Your task to perform on an android device: Open a new incognito window in the chrome app Image 0: 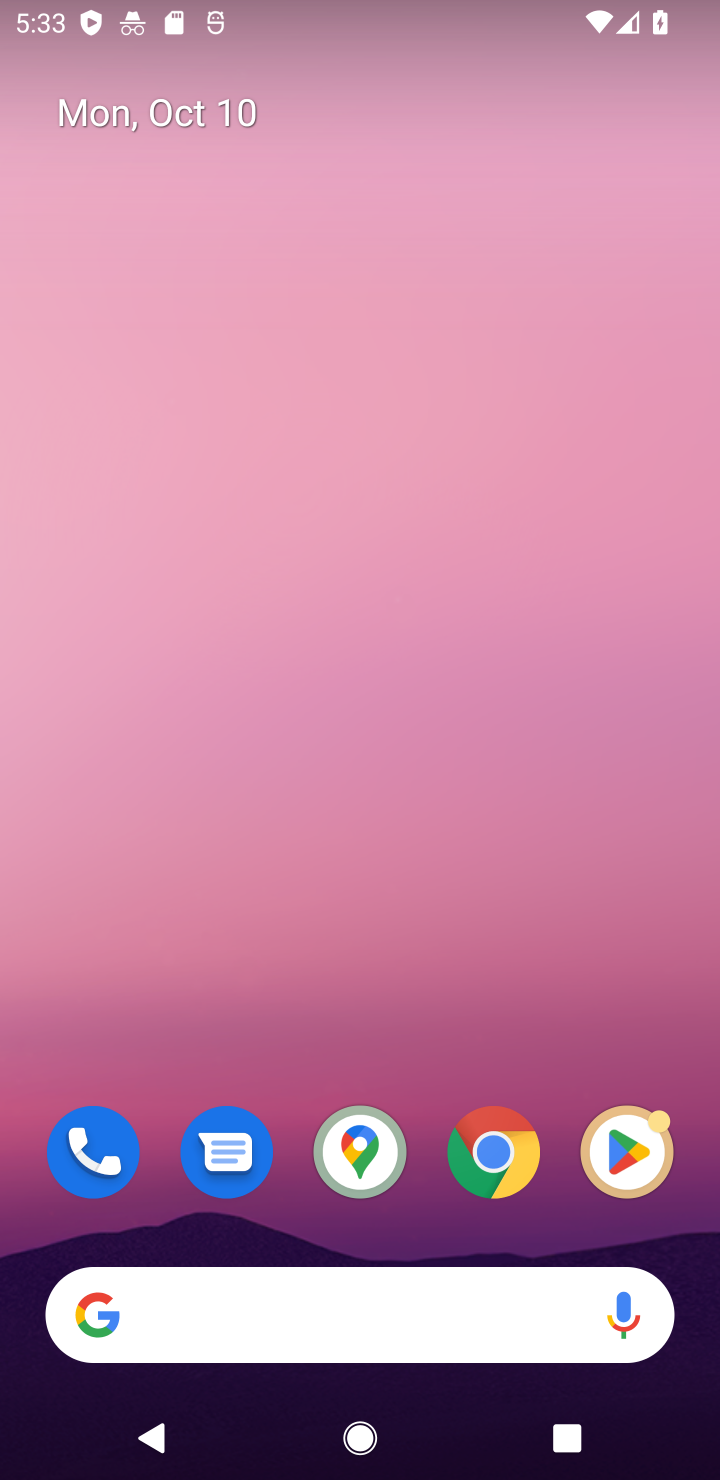
Step 0: click (495, 1153)
Your task to perform on an android device: Open a new incognito window in the chrome app Image 1: 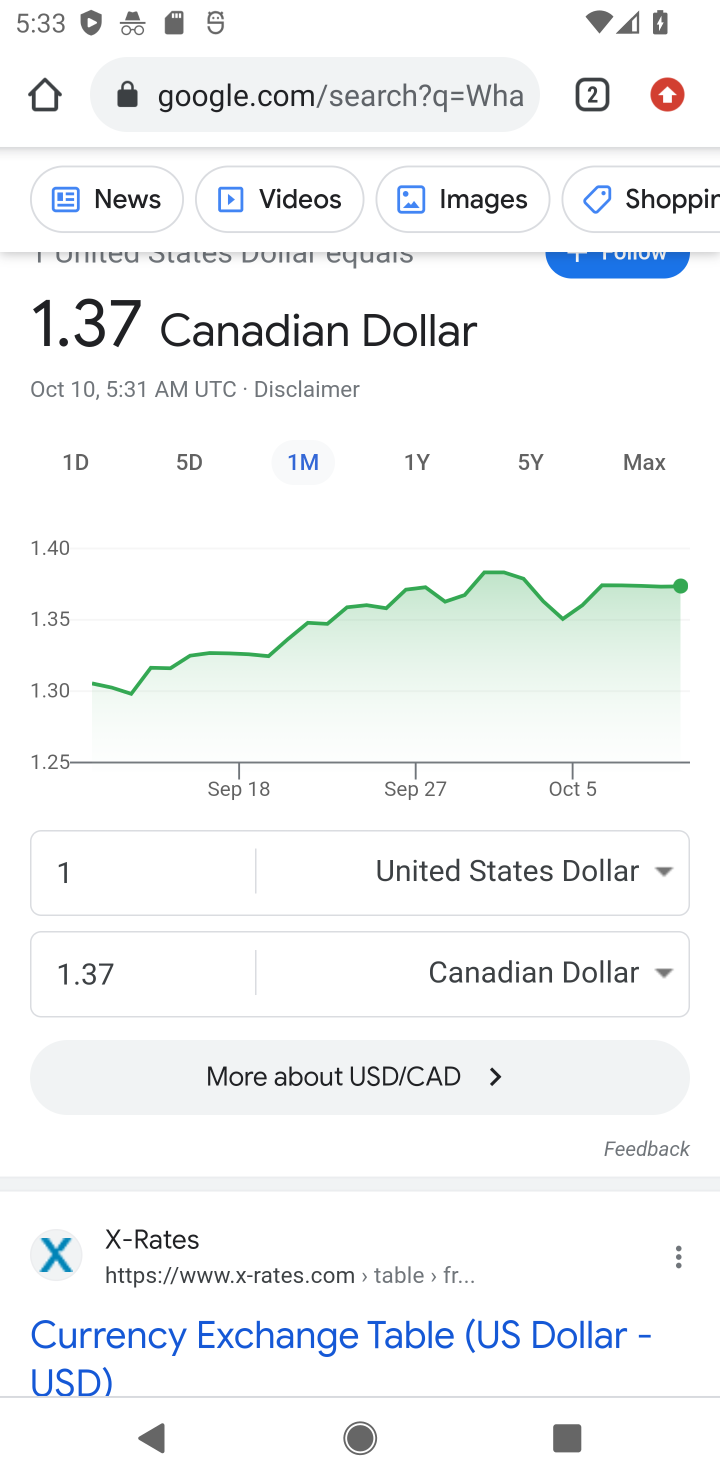
Step 1: click (668, 105)
Your task to perform on an android device: Open a new incognito window in the chrome app Image 2: 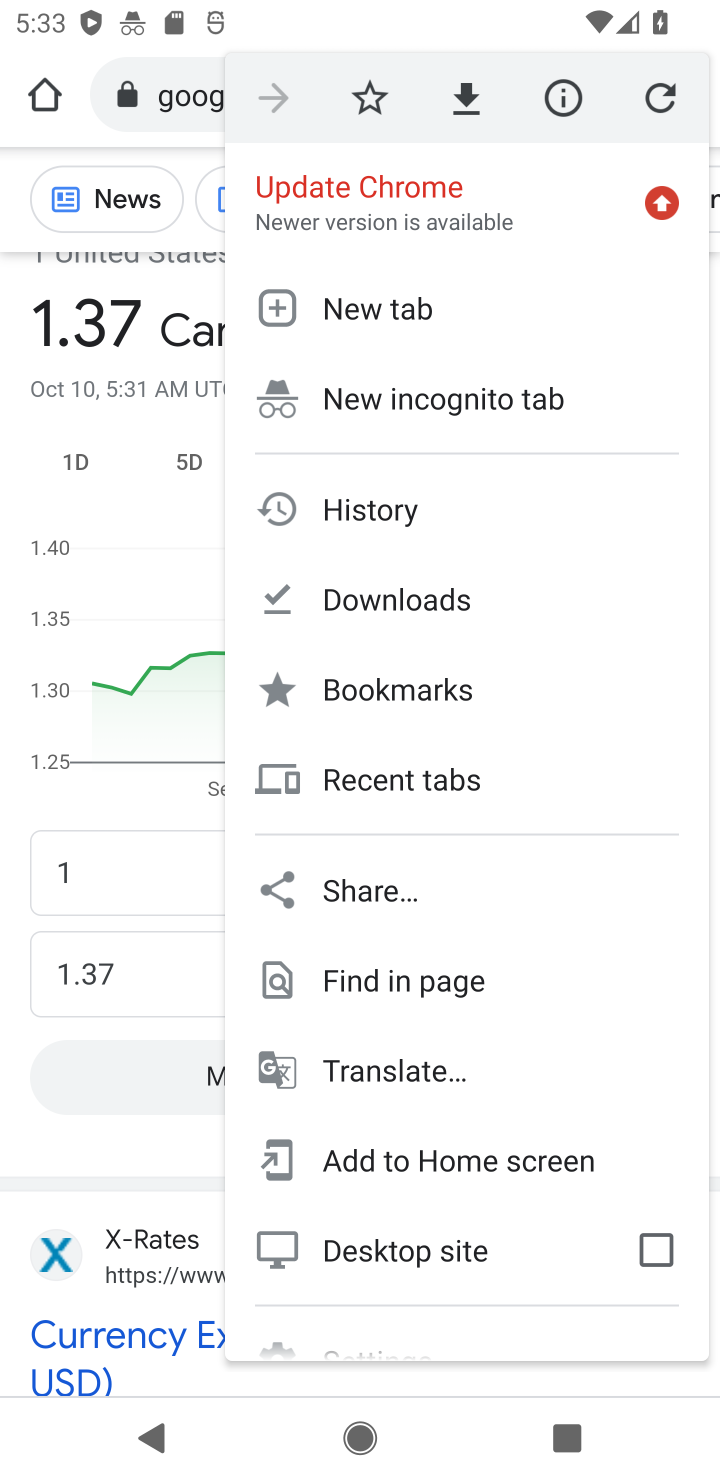
Step 2: click (482, 393)
Your task to perform on an android device: Open a new incognito window in the chrome app Image 3: 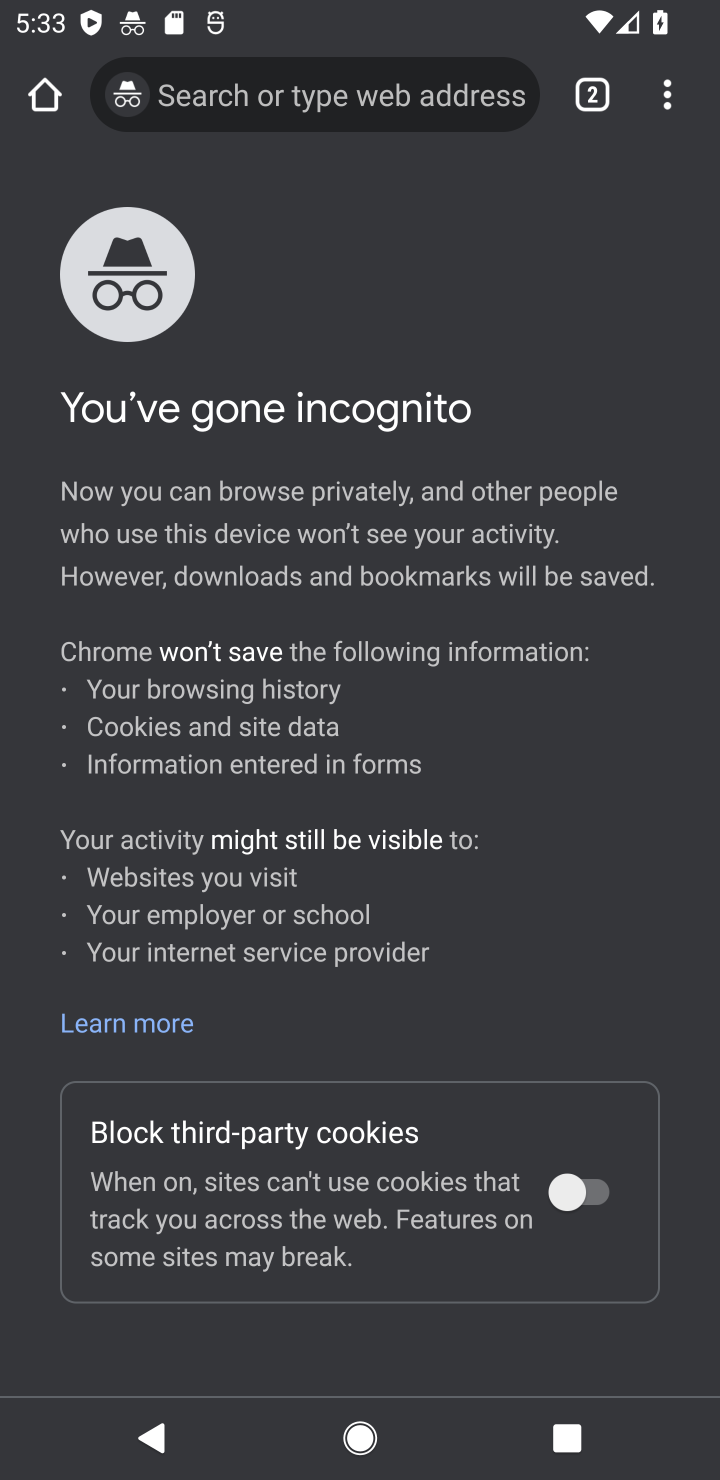
Step 3: task complete